Your task to perform on an android device: Go to sound settings Image 0: 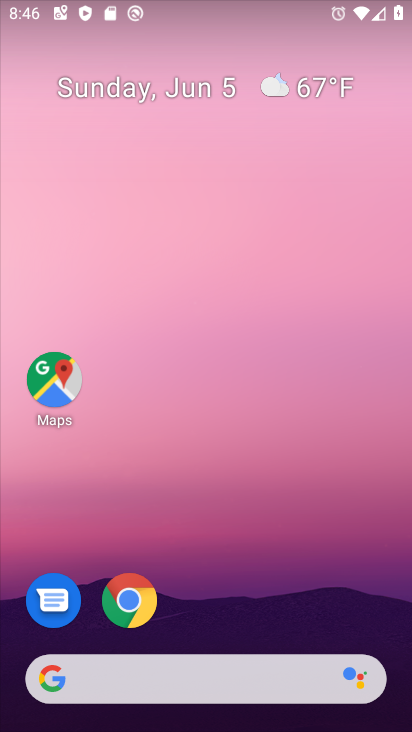
Step 0: drag from (399, 647) to (201, 56)
Your task to perform on an android device: Go to sound settings Image 1: 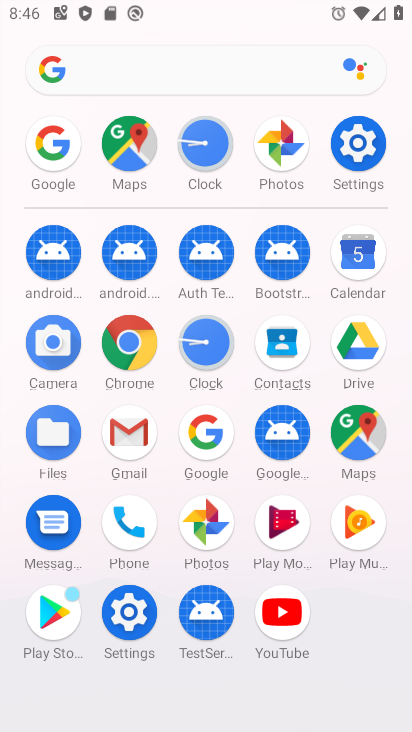
Step 1: click (143, 611)
Your task to perform on an android device: Go to sound settings Image 2: 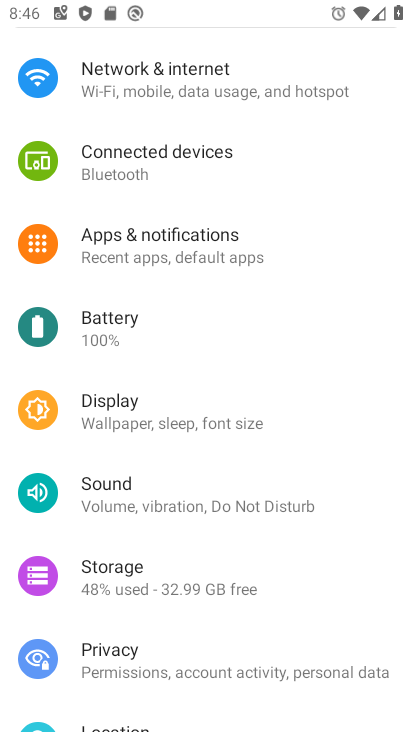
Step 2: click (125, 489)
Your task to perform on an android device: Go to sound settings Image 3: 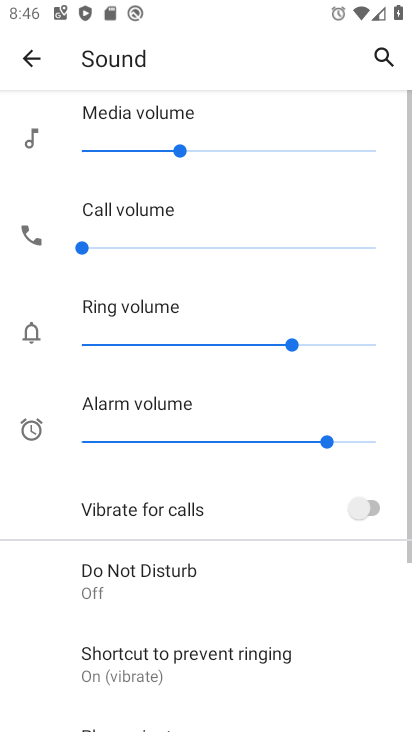
Step 3: task complete